Your task to perform on an android device: Play the new Maroon 5 video on YouTube Image 0: 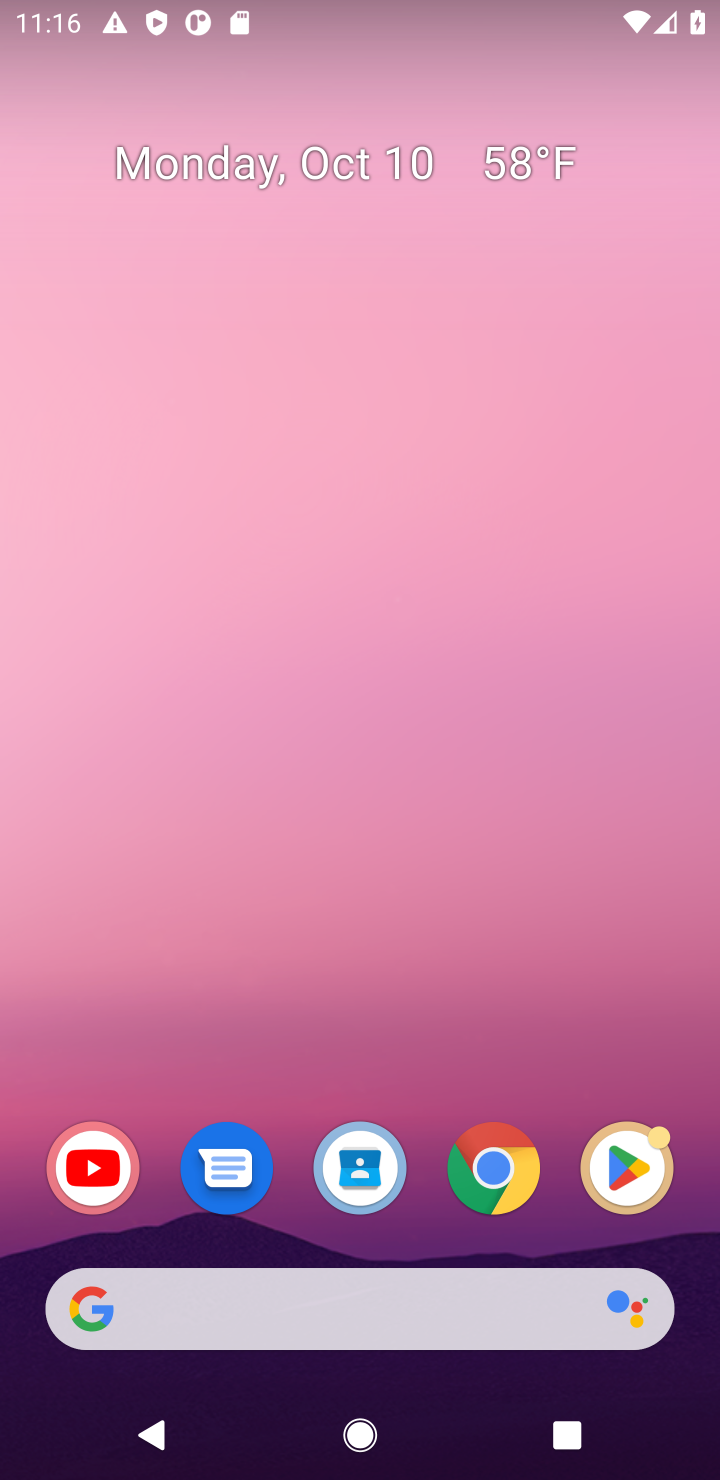
Step 0: click (92, 1183)
Your task to perform on an android device: Play the new Maroon 5 video on YouTube Image 1: 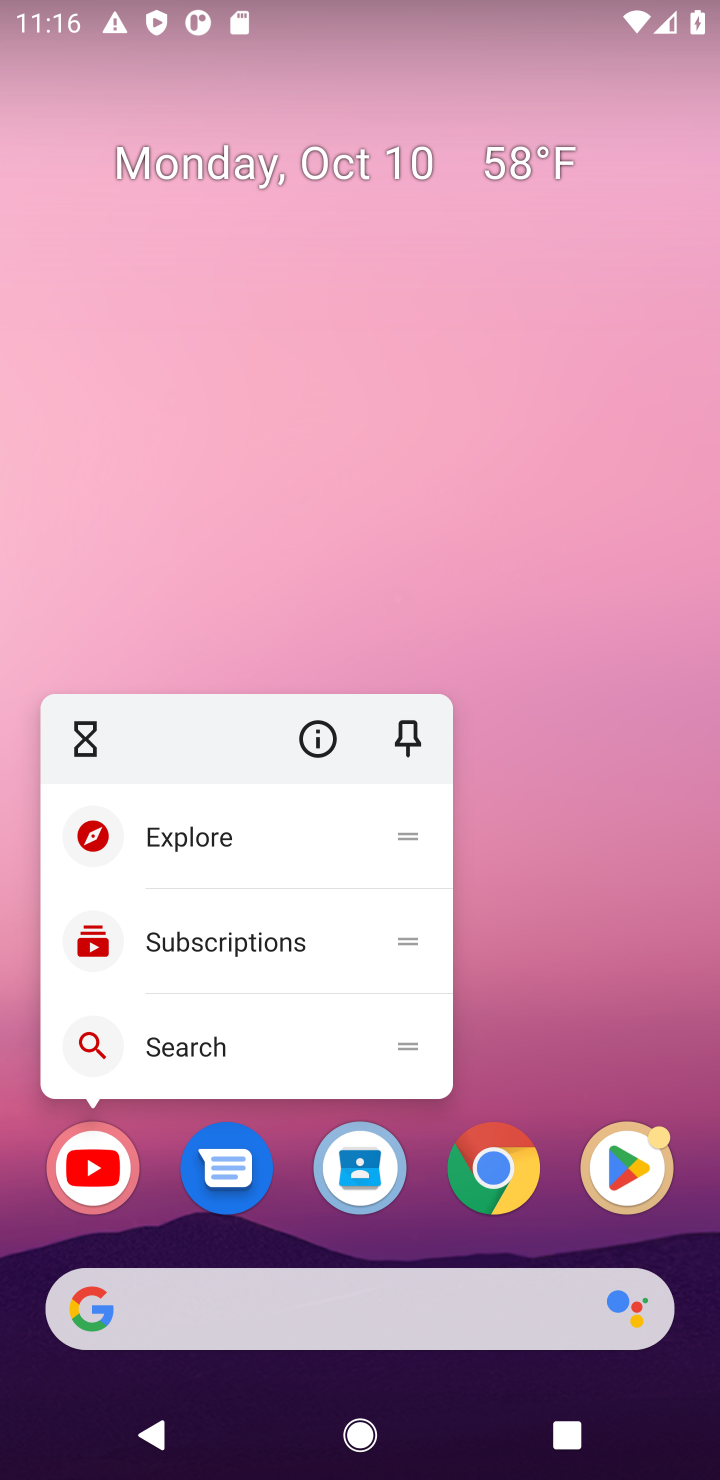
Step 1: click (92, 1183)
Your task to perform on an android device: Play the new Maroon 5 video on YouTube Image 2: 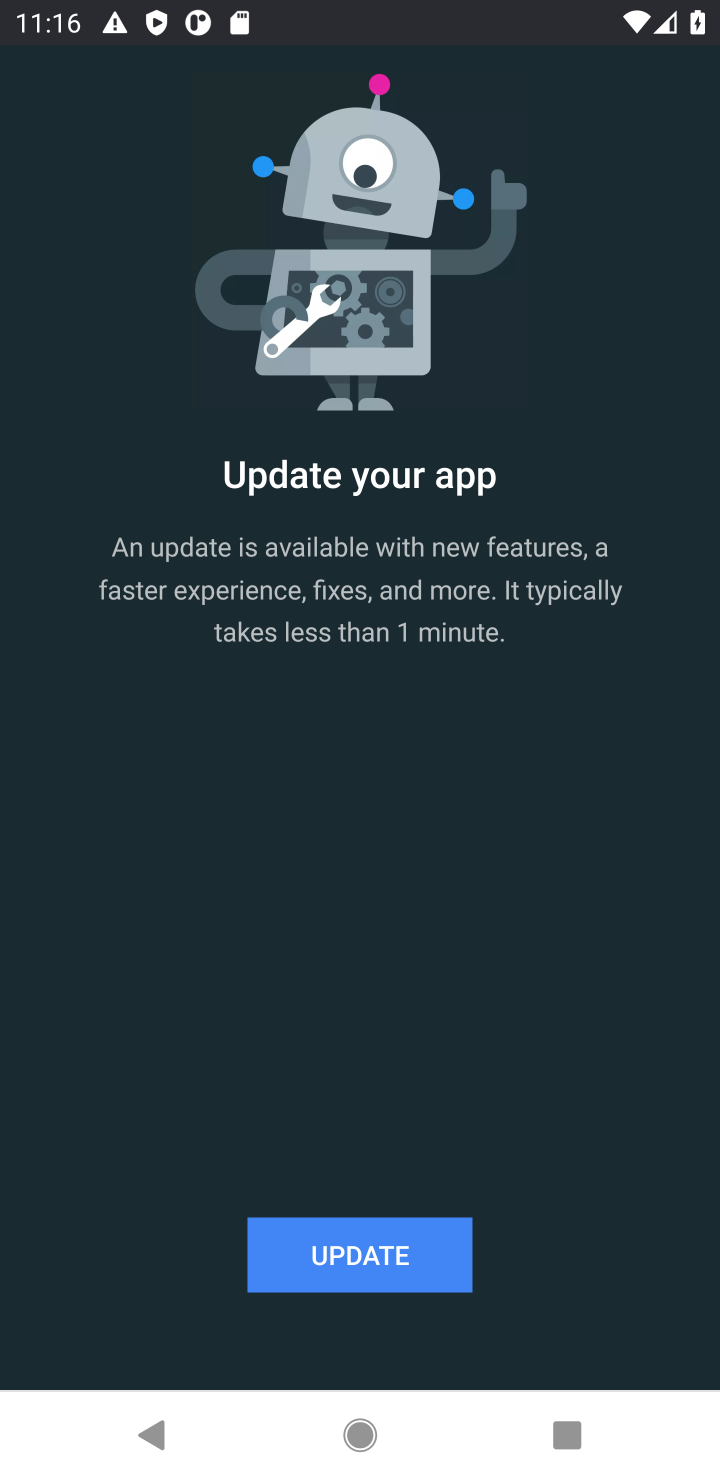
Step 2: click (315, 1223)
Your task to perform on an android device: Play the new Maroon 5 video on YouTube Image 3: 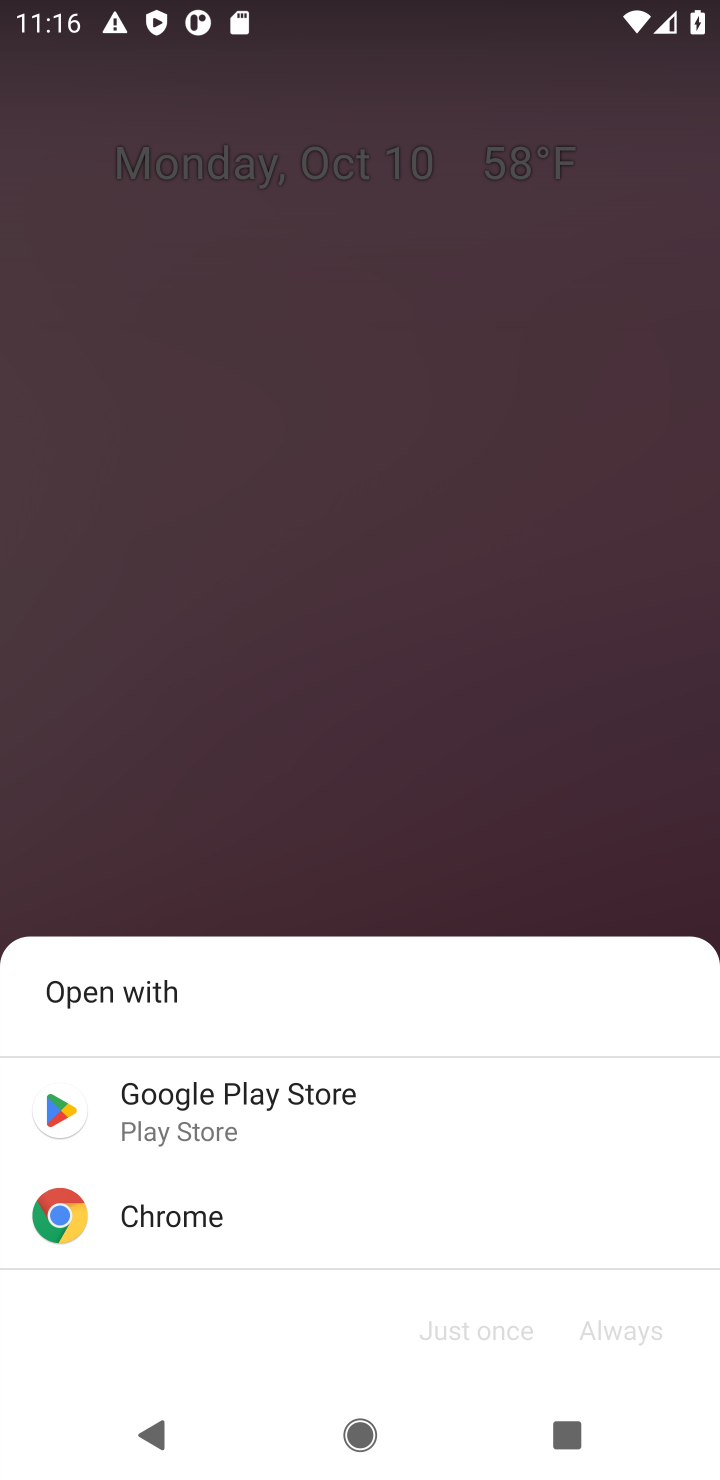
Step 3: click (171, 1132)
Your task to perform on an android device: Play the new Maroon 5 video on YouTube Image 4: 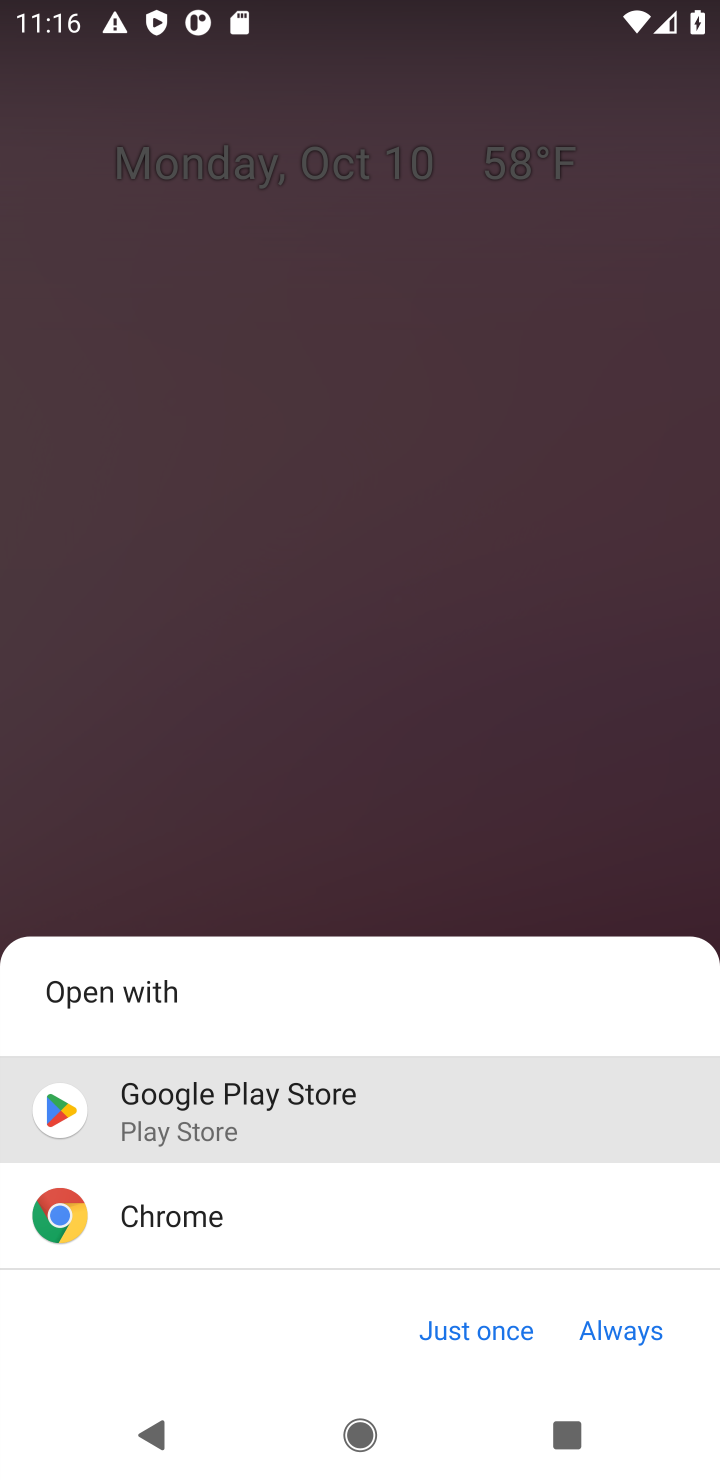
Step 4: click (489, 1340)
Your task to perform on an android device: Play the new Maroon 5 video on YouTube Image 5: 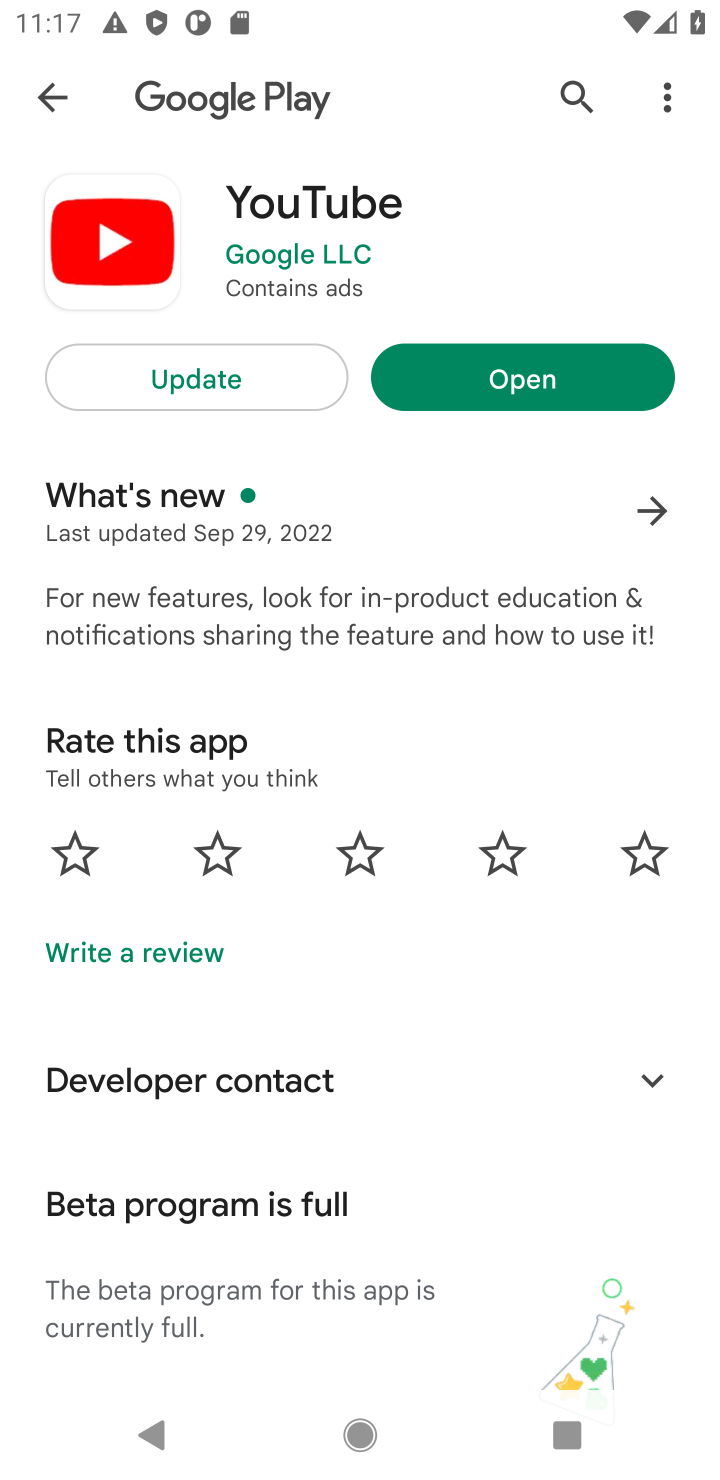
Step 5: click (274, 379)
Your task to perform on an android device: Play the new Maroon 5 video on YouTube Image 6: 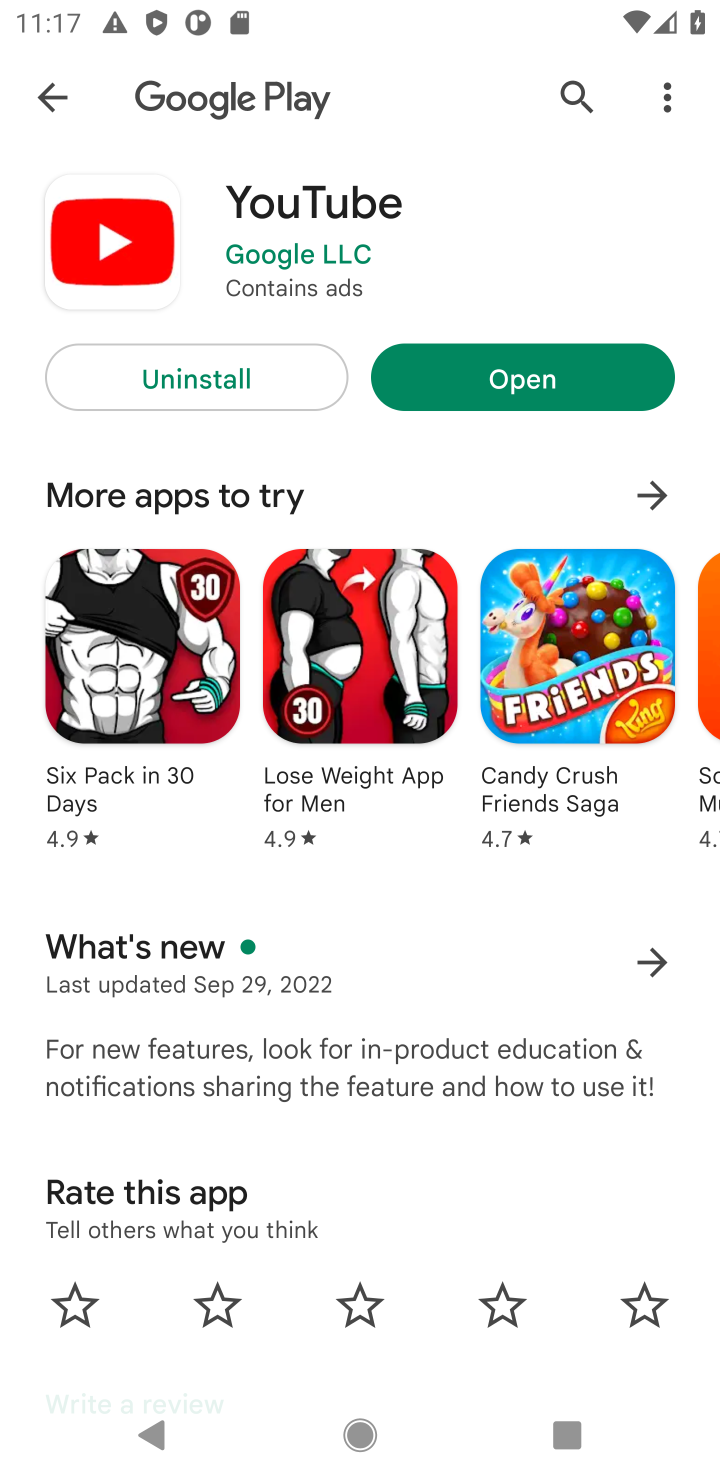
Step 6: click (588, 383)
Your task to perform on an android device: Play the new Maroon 5 video on YouTube Image 7: 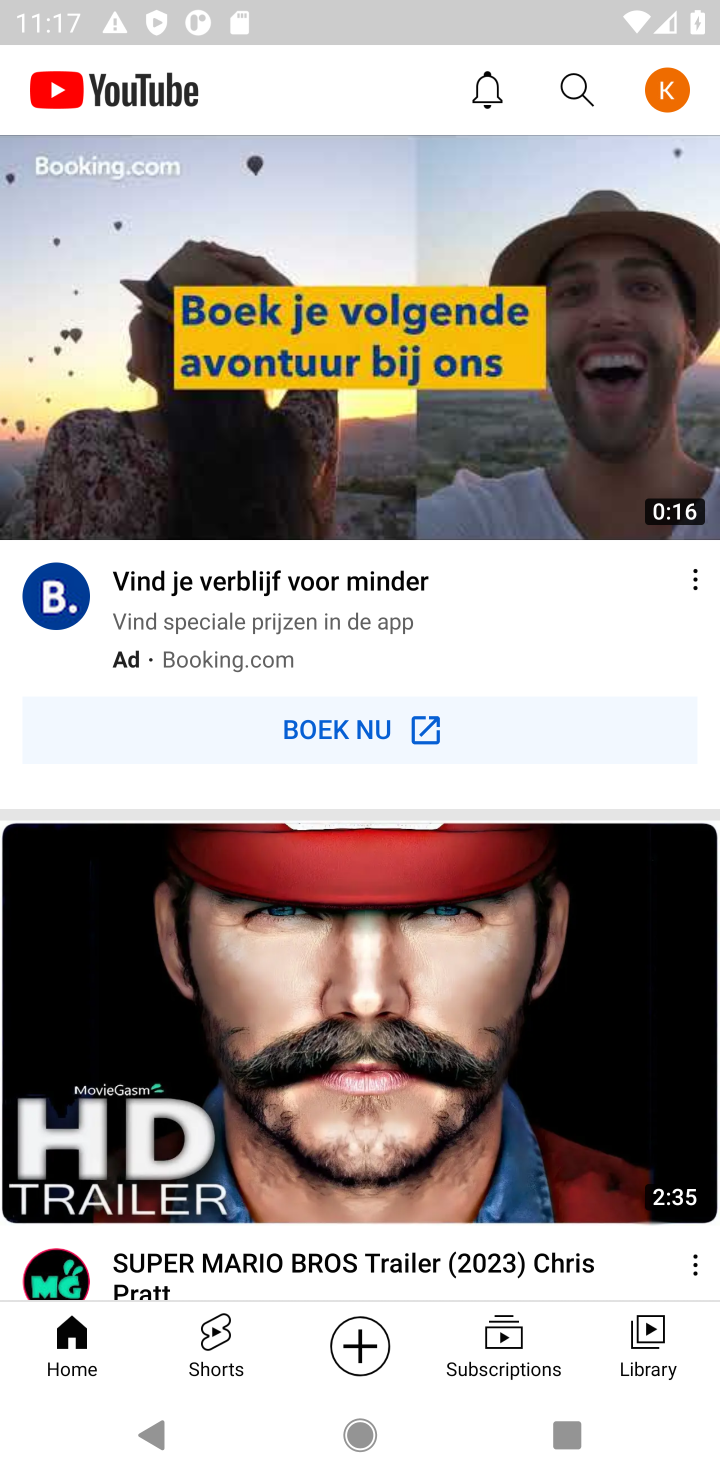
Step 7: click (581, 83)
Your task to perform on an android device: Play the new Maroon 5 video on YouTube Image 8: 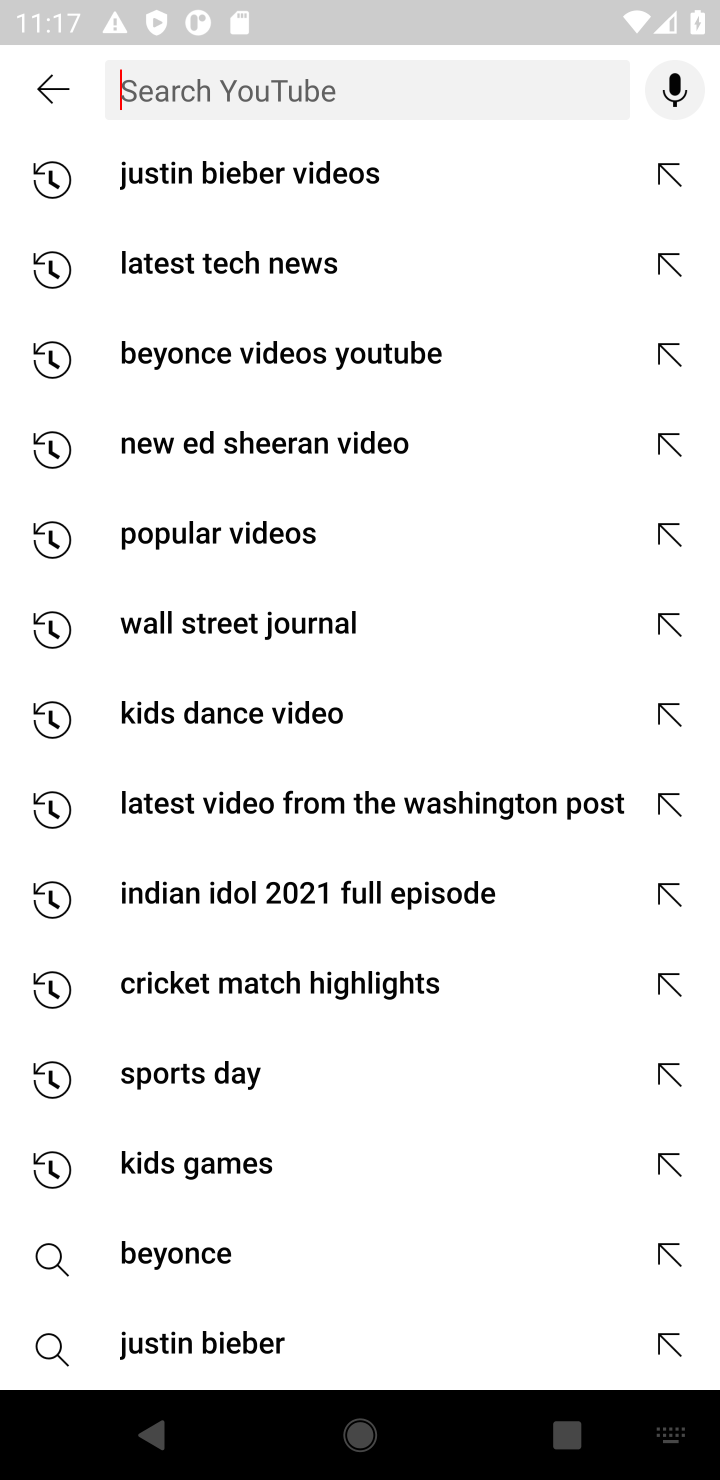
Step 8: type "Maroon 5 video "
Your task to perform on an android device: Play the new Maroon 5 video on YouTube Image 9: 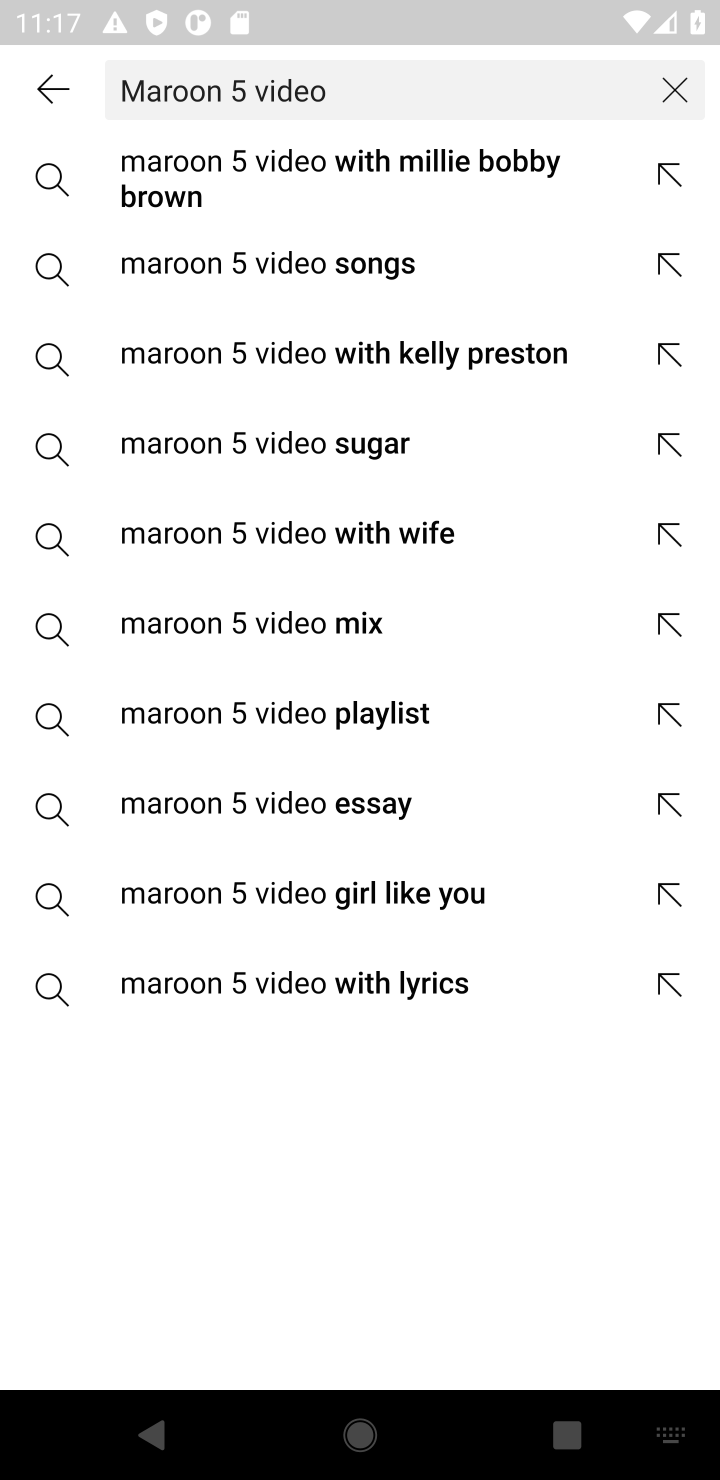
Step 9: click (498, 265)
Your task to perform on an android device: Play the new Maroon 5 video on YouTube Image 10: 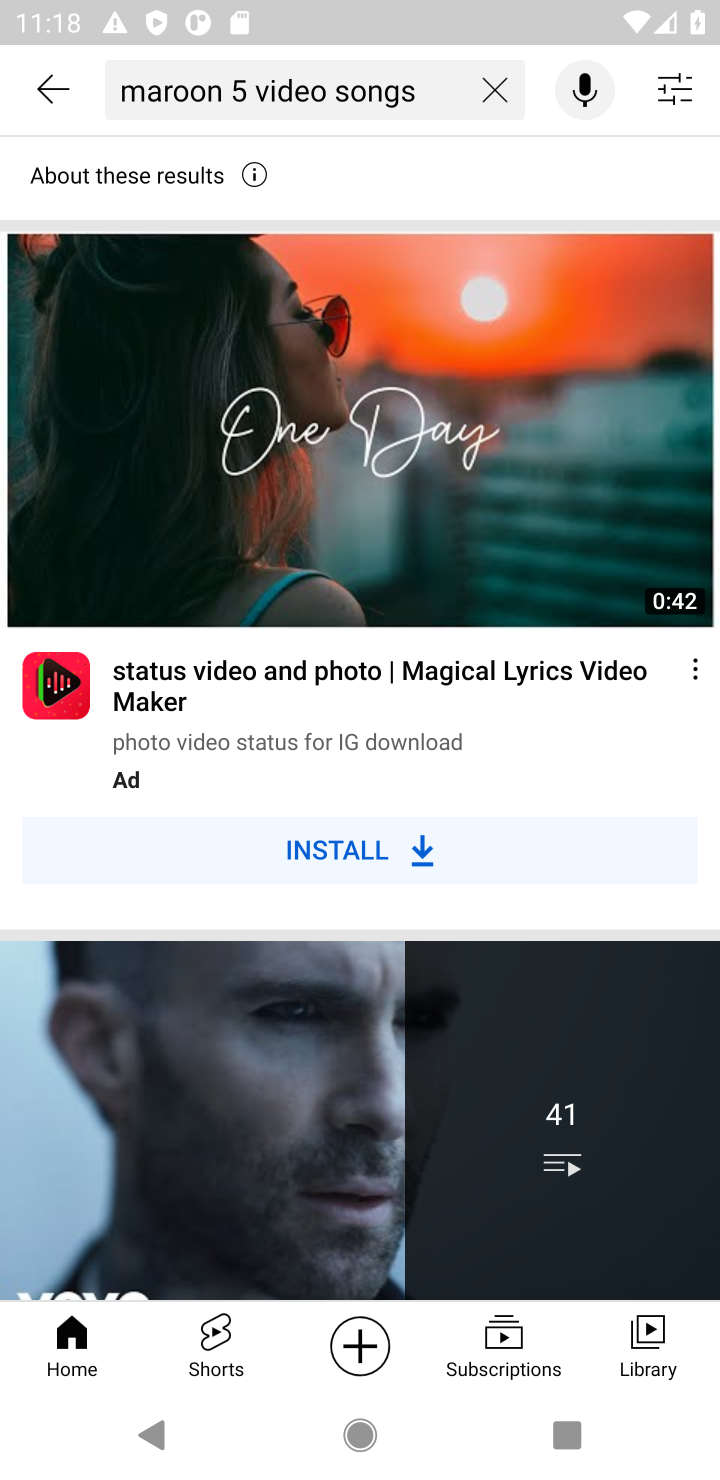
Step 10: drag from (314, 764) to (378, 346)
Your task to perform on an android device: Play the new Maroon 5 video on YouTube Image 11: 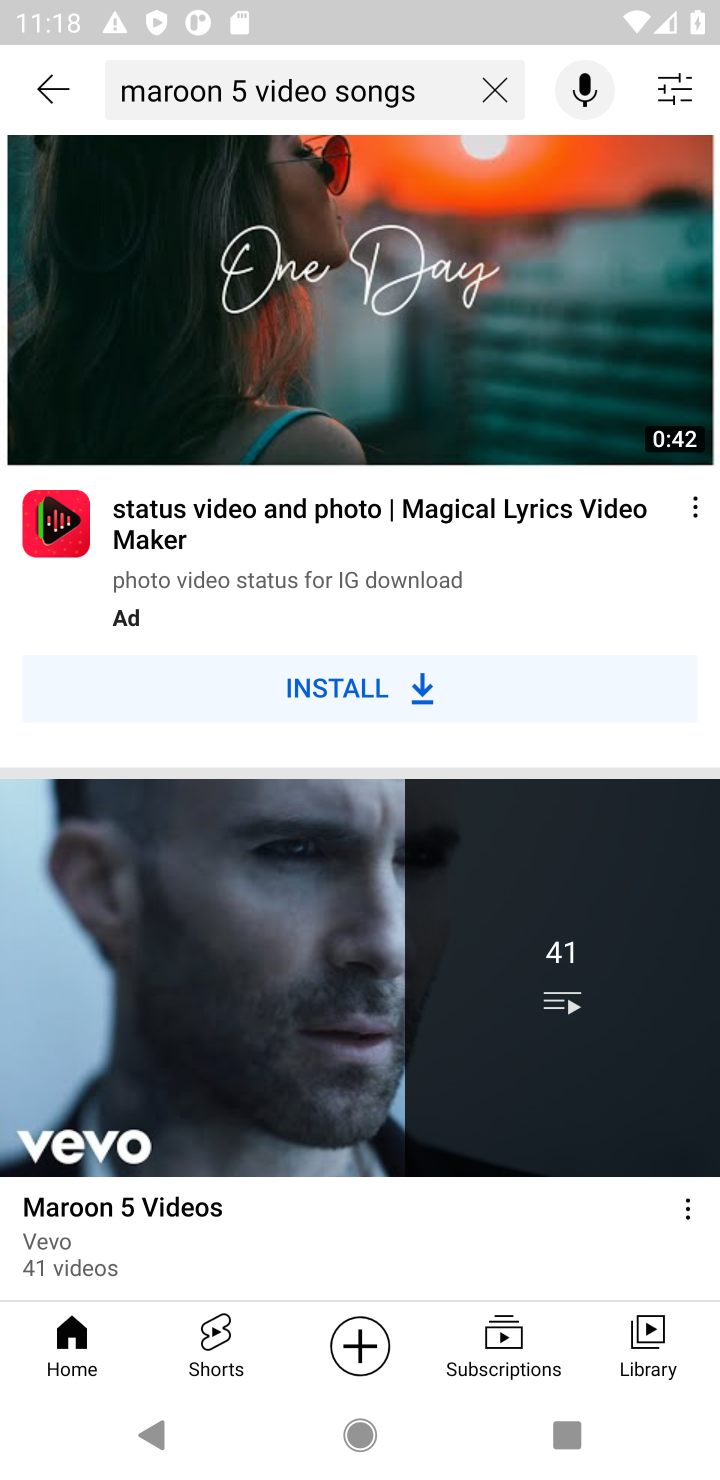
Step 11: drag from (427, 1241) to (354, 455)
Your task to perform on an android device: Play the new Maroon 5 video on YouTube Image 12: 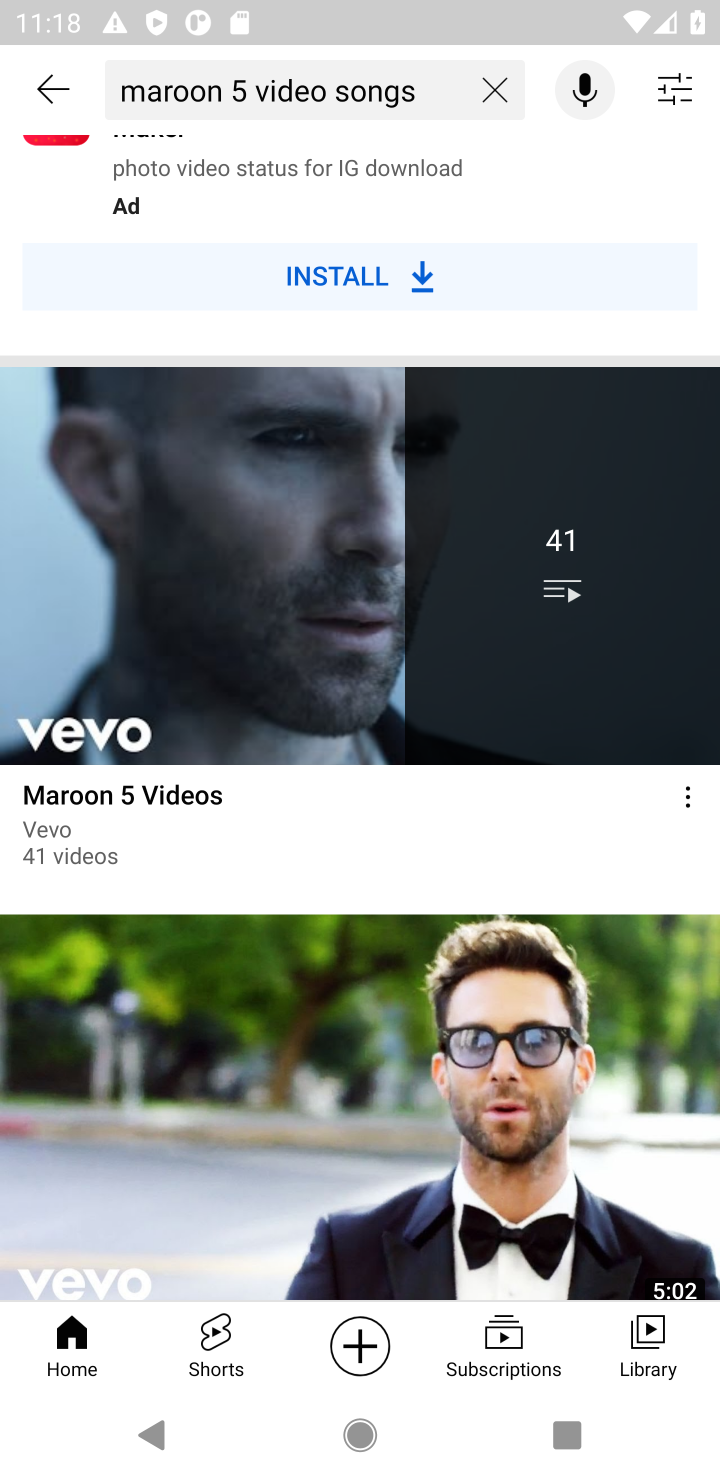
Step 12: drag from (376, 1005) to (404, 455)
Your task to perform on an android device: Play the new Maroon 5 video on YouTube Image 13: 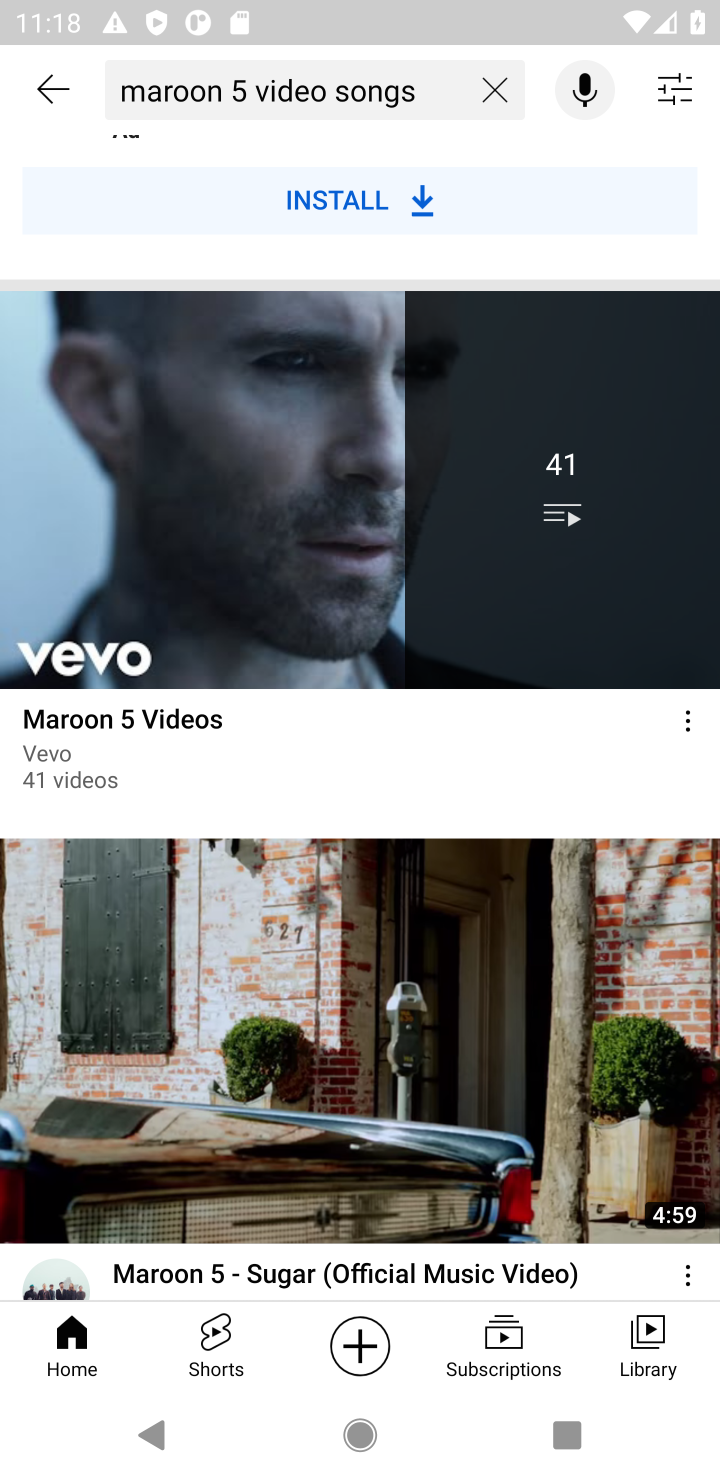
Step 13: click (335, 987)
Your task to perform on an android device: Play the new Maroon 5 video on YouTube Image 14: 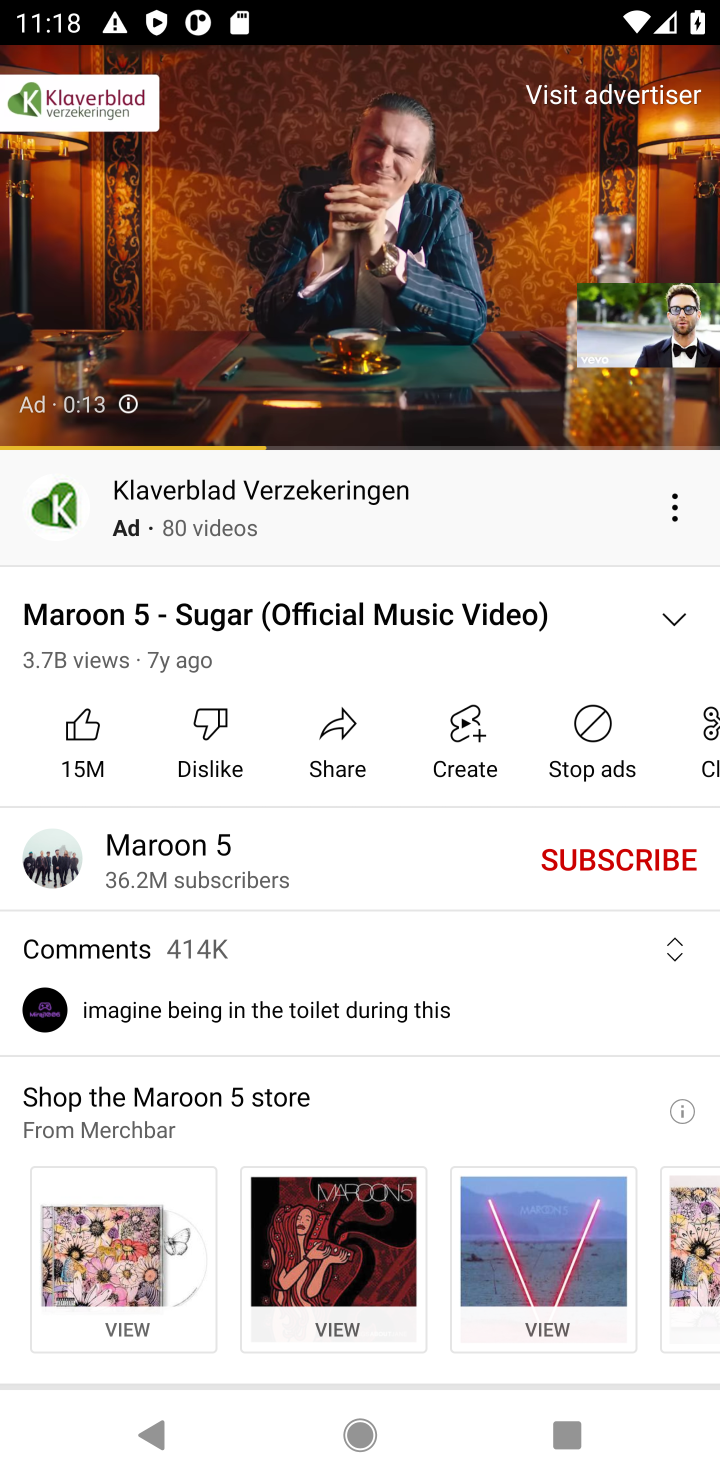
Step 14: click (374, 280)
Your task to perform on an android device: Play the new Maroon 5 video on YouTube Image 15: 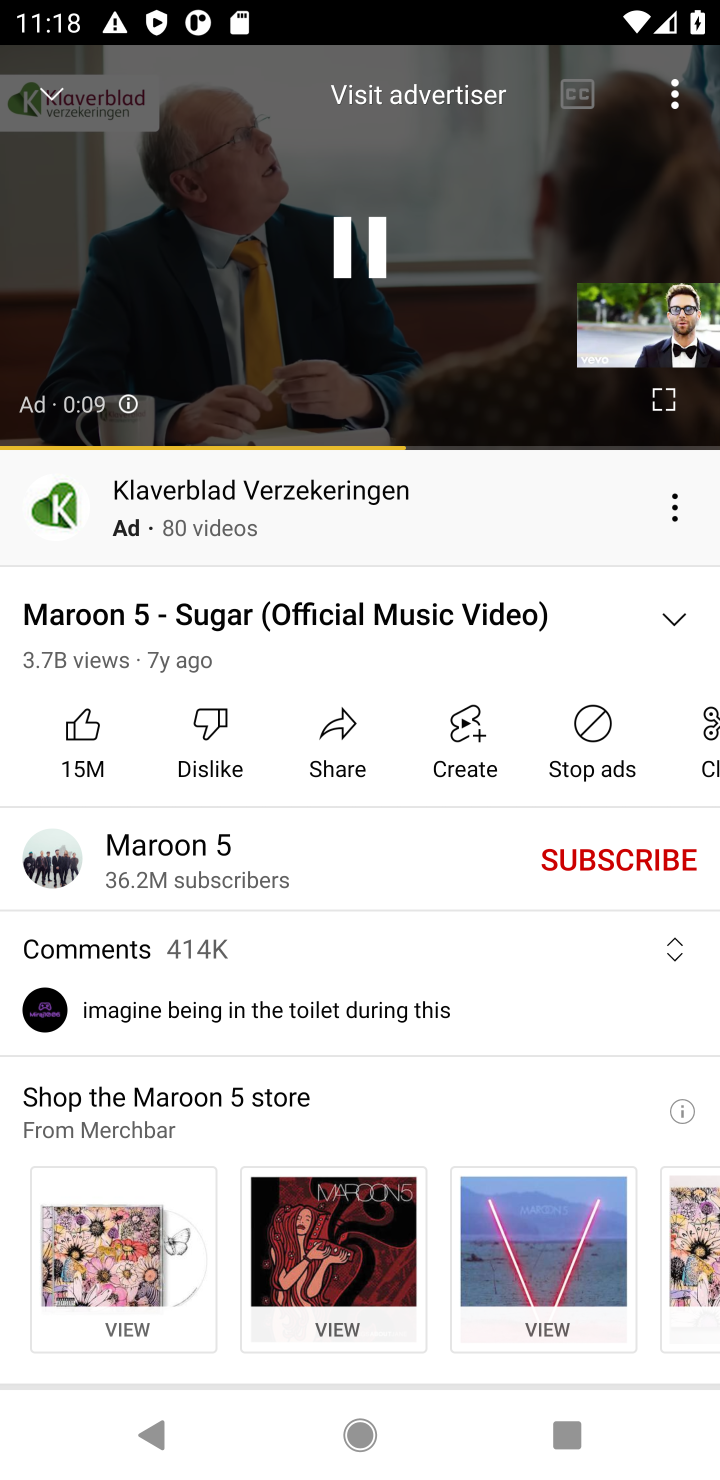
Step 15: click (361, 252)
Your task to perform on an android device: Play the new Maroon 5 video on YouTube Image 16: 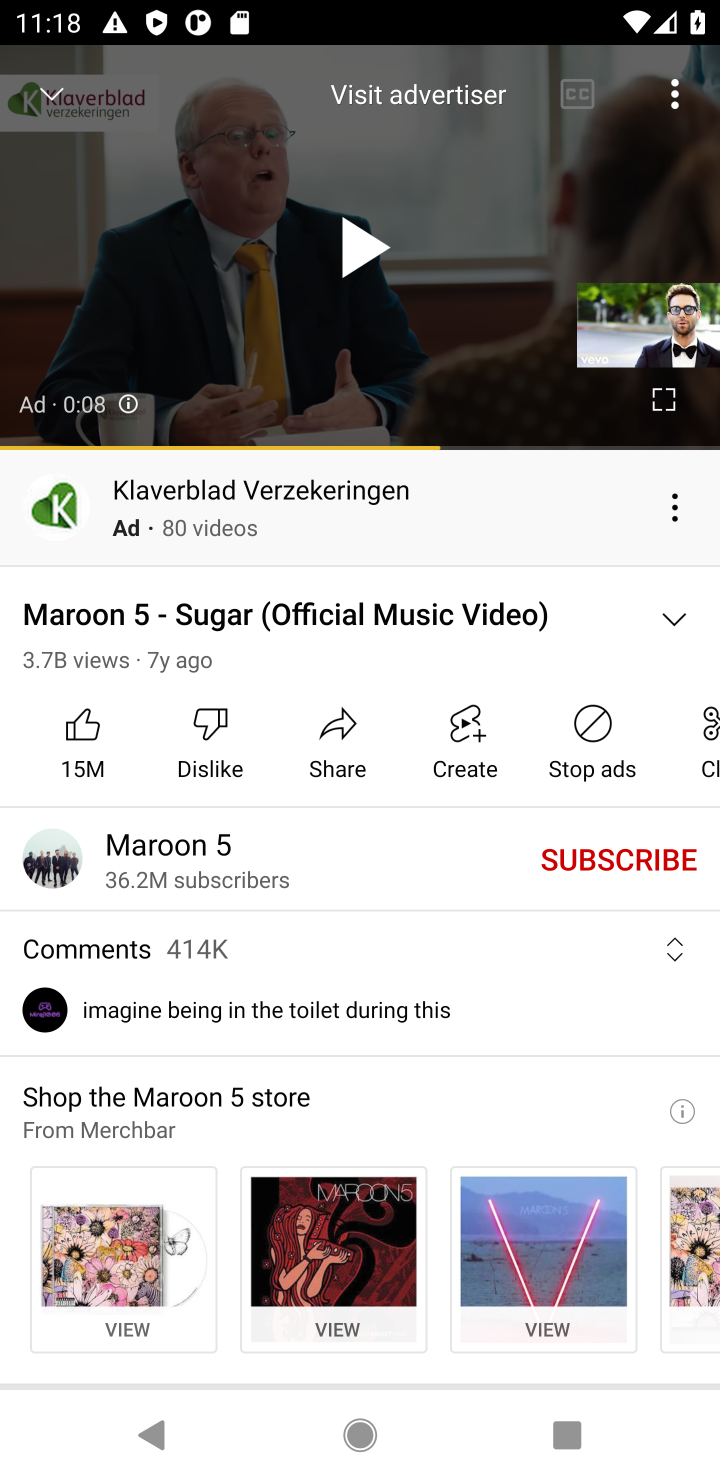
Step 16: task complete